Your task to perform on an android device: What's the weather like in Los Angeles? Image 0: 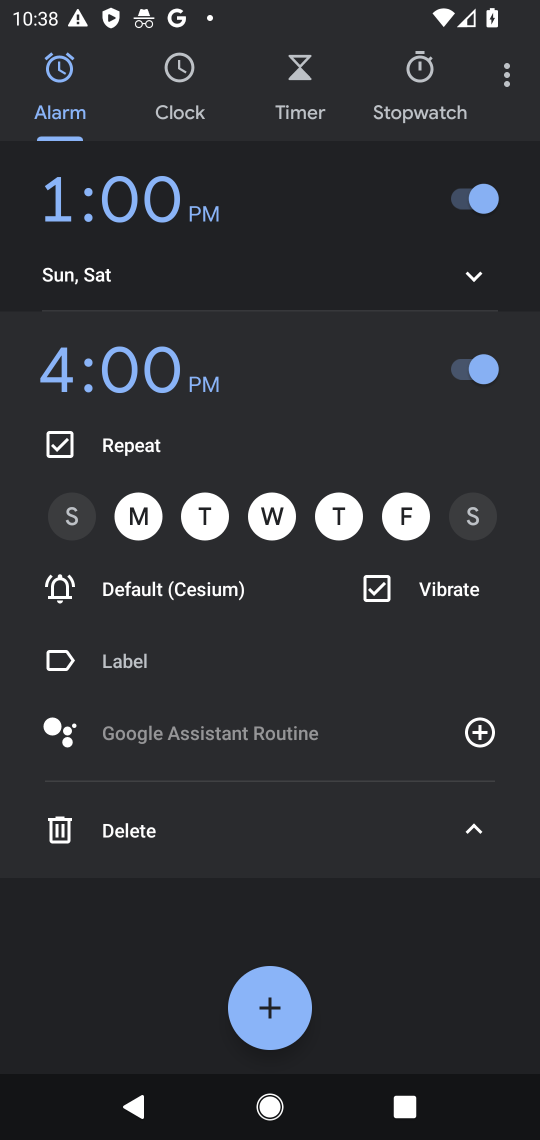
Step 0: press home button
Your task to perform on an android device: What's the weather like in Los Angeles? Image 1: 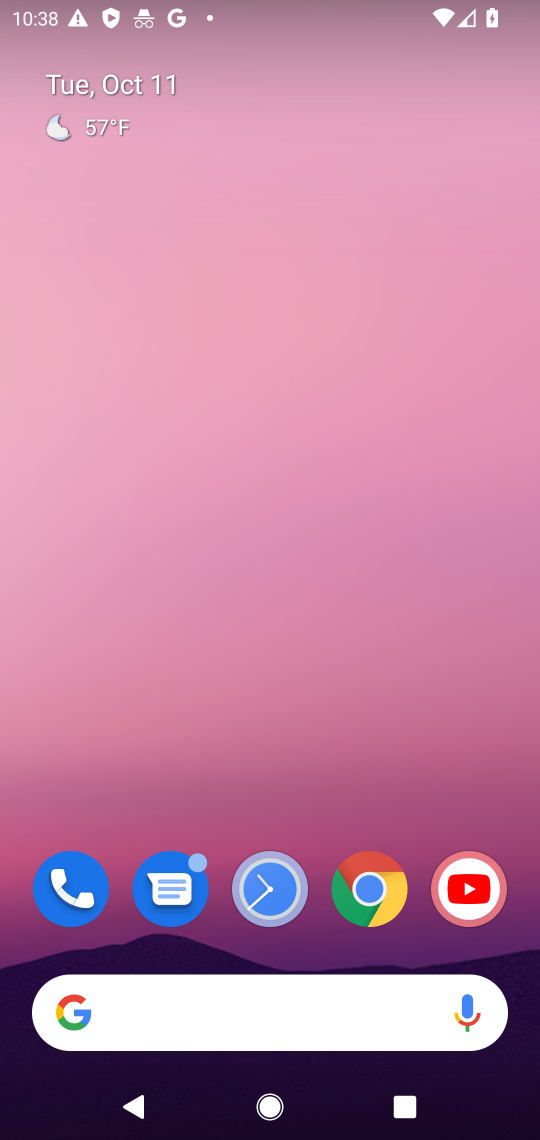
Step 1: click (198, 1023)
Your task to perform on an android device: What's the weather like in Los Angeles? Image 2: 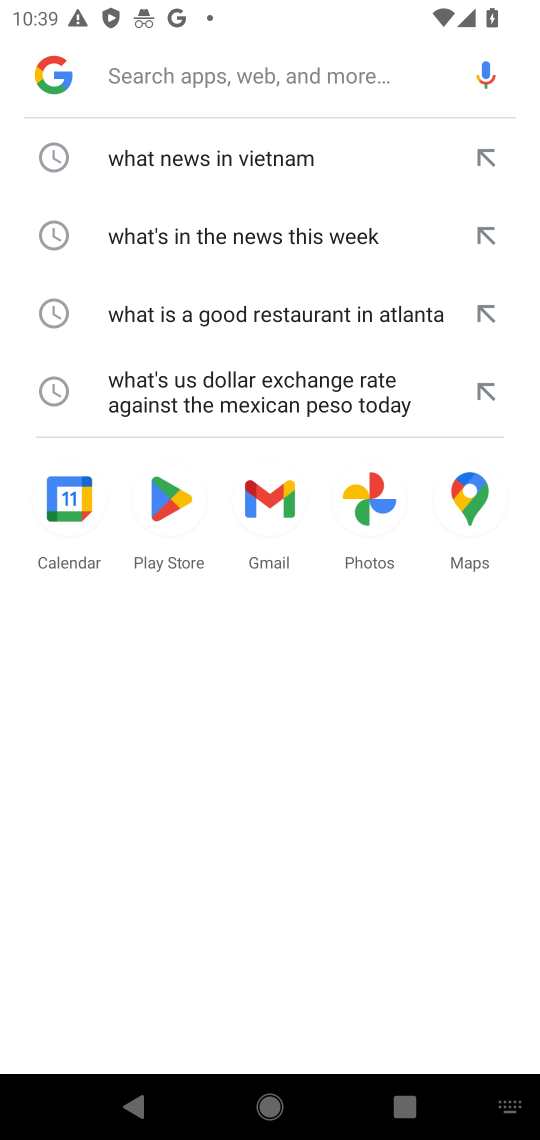
Step 2: click (180, 83)
Your task to perform on an android device: What's the weather like in Los Angeles? Image 3: 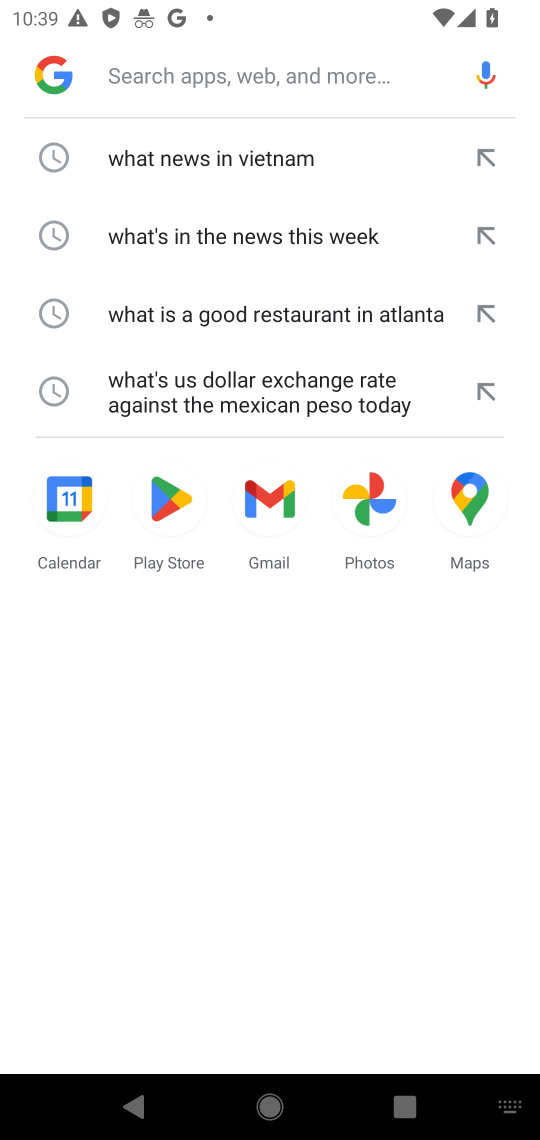
Step 3: type "What's the weather like in Los Angeles?"
Your task to perform on an android device: What's the weather like in Los Angeles? Image 4: 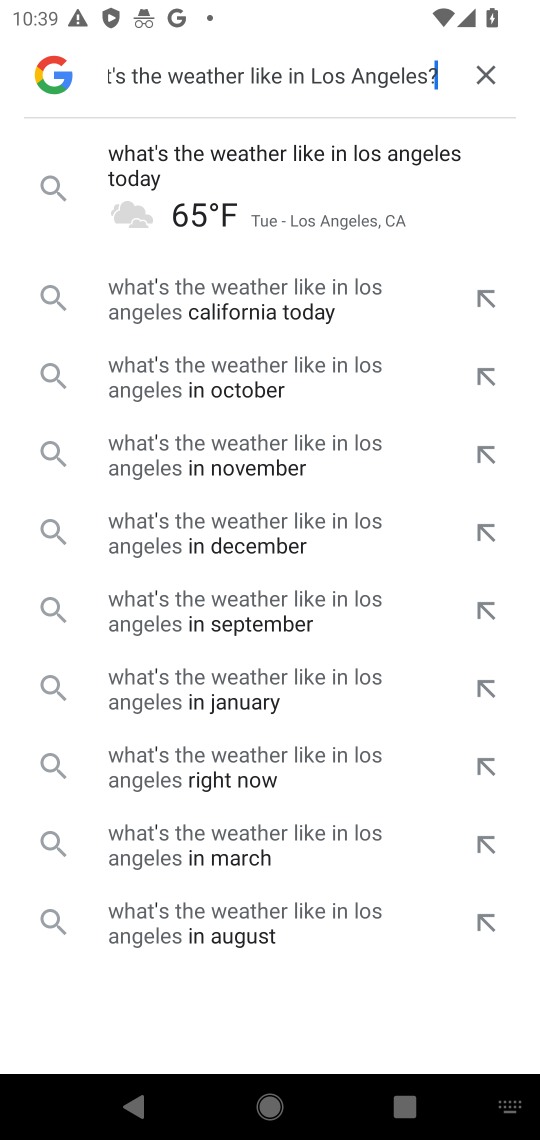
Step 4: click (384, 179)
Your task to perform on an android device: What's the weather like in Los Angeles? Image 5: 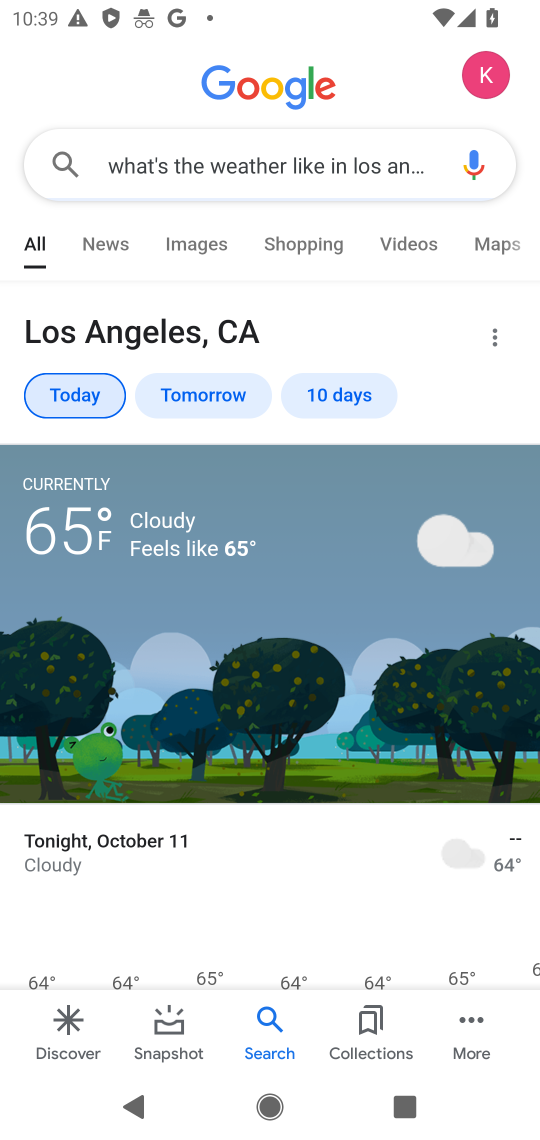
Step 5: task complete